Your task to perform on an android device: toggle airplane mode Image 0: 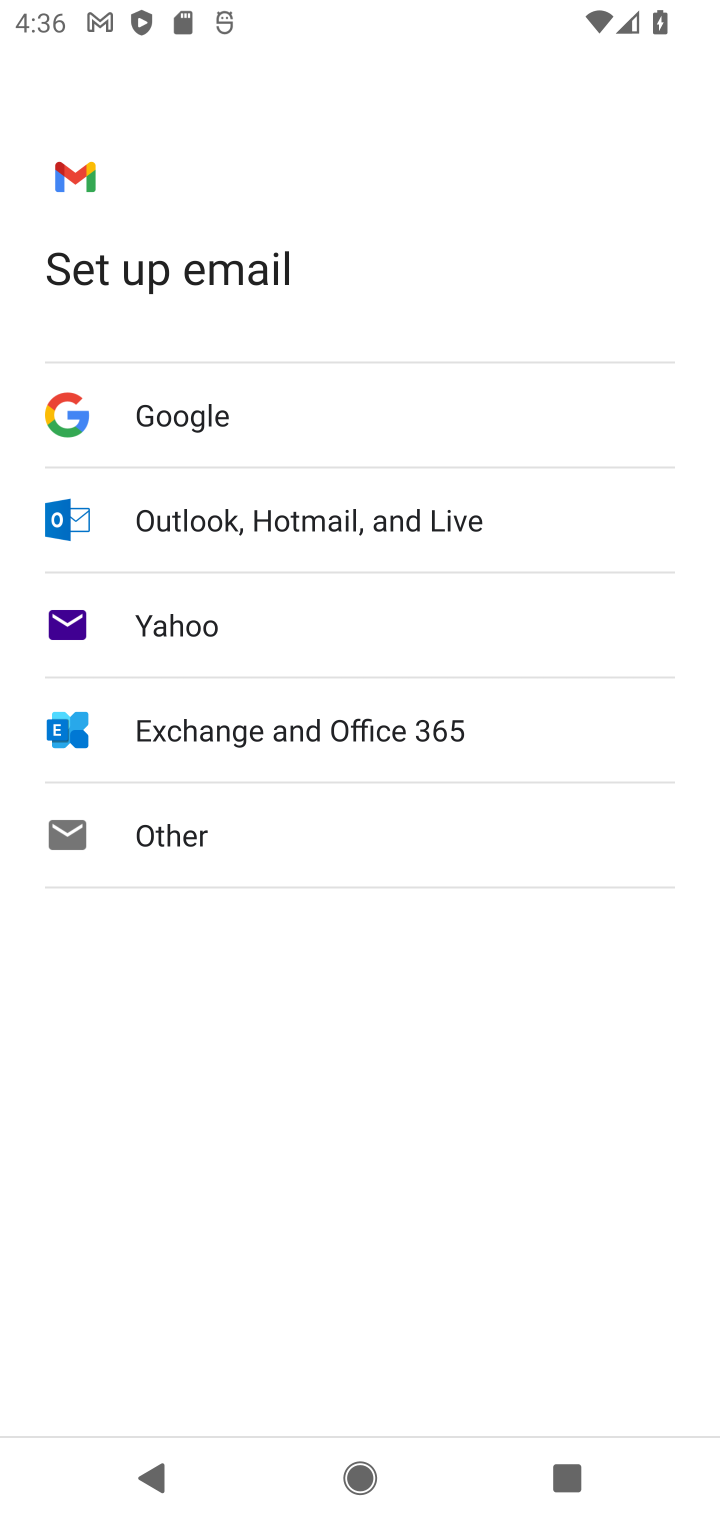
Step 0: press home button
Your task to perform on an android device: toggle airplane mode Image 1: 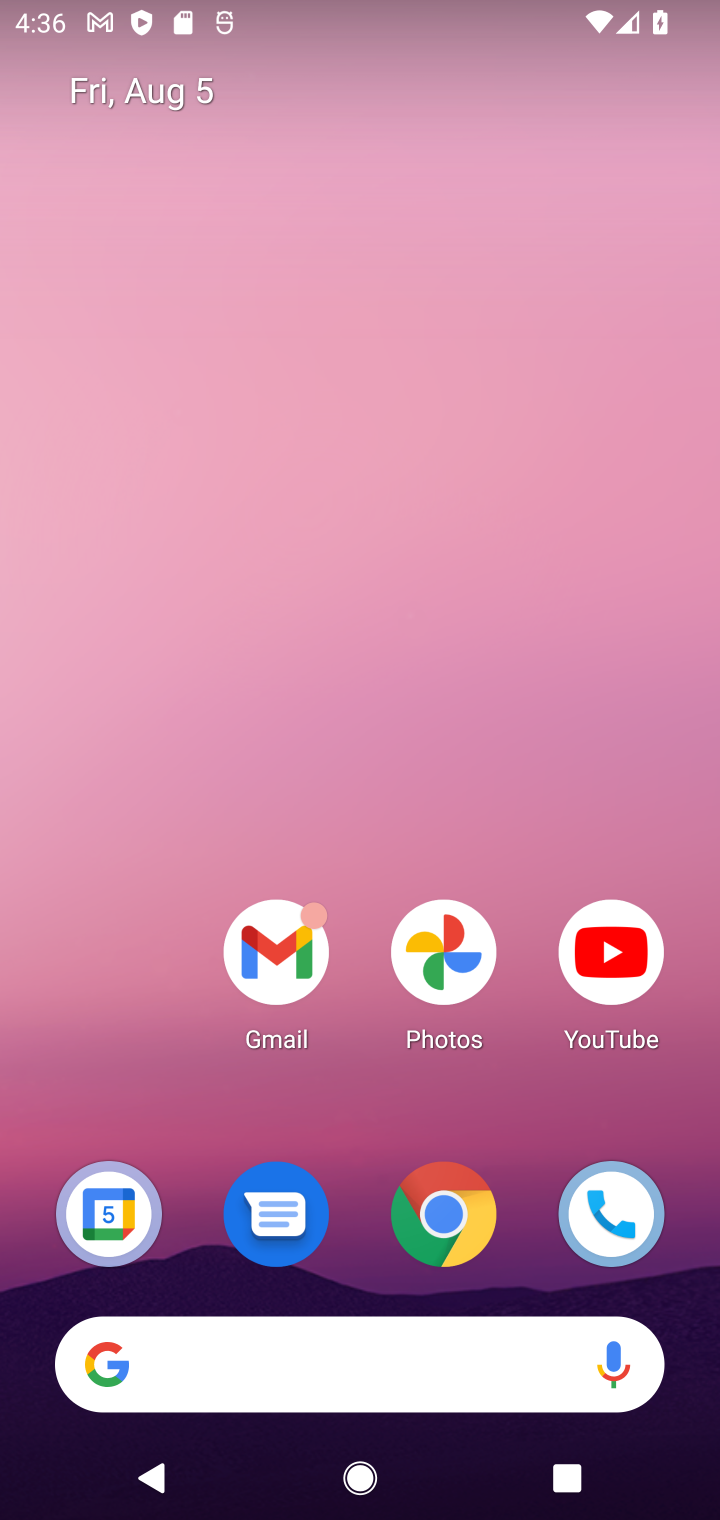
Step 1: click (179, 1060)
Your task to perform on an android device: toggle airplane mode Image 2: 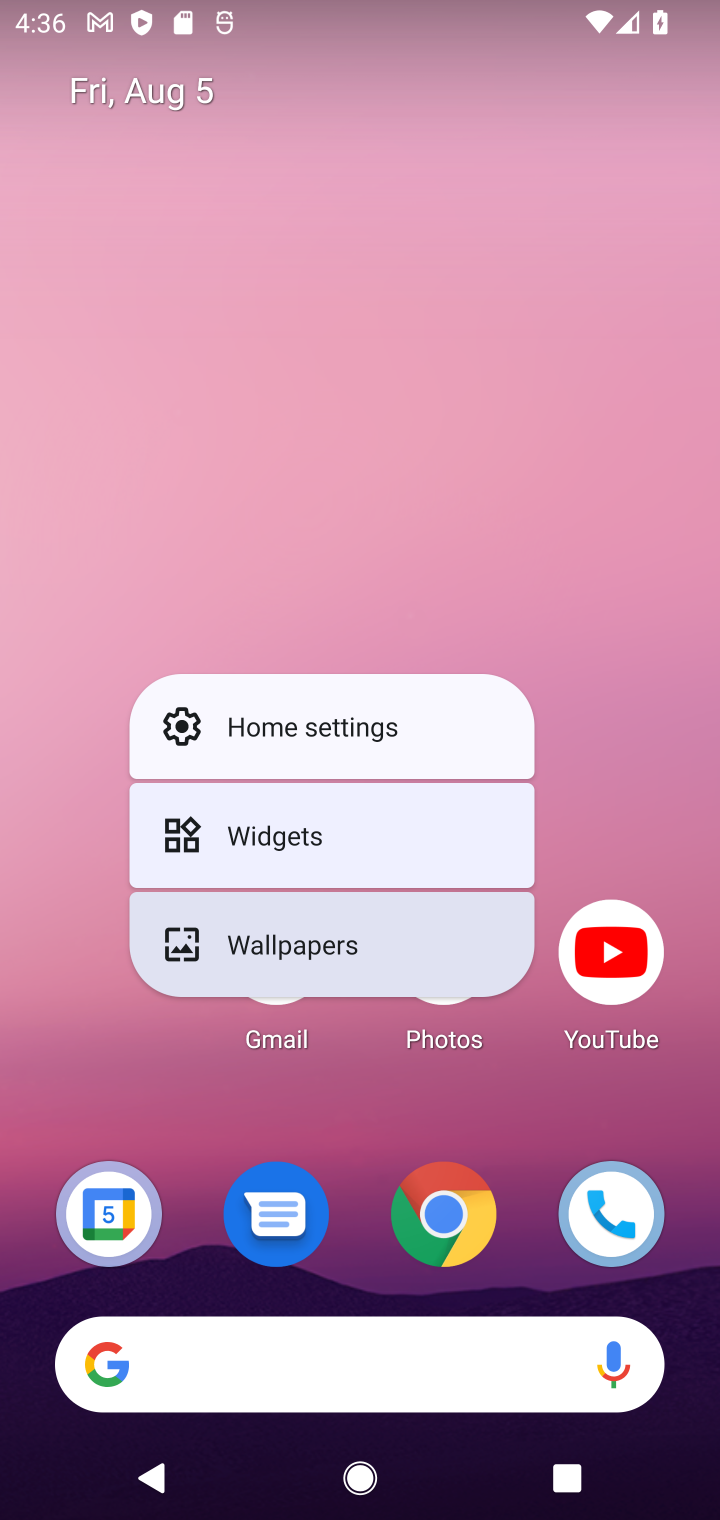
Step 2: click (277, 1206)
Your task to perform on an android device: toggle airplane mode Image 3: 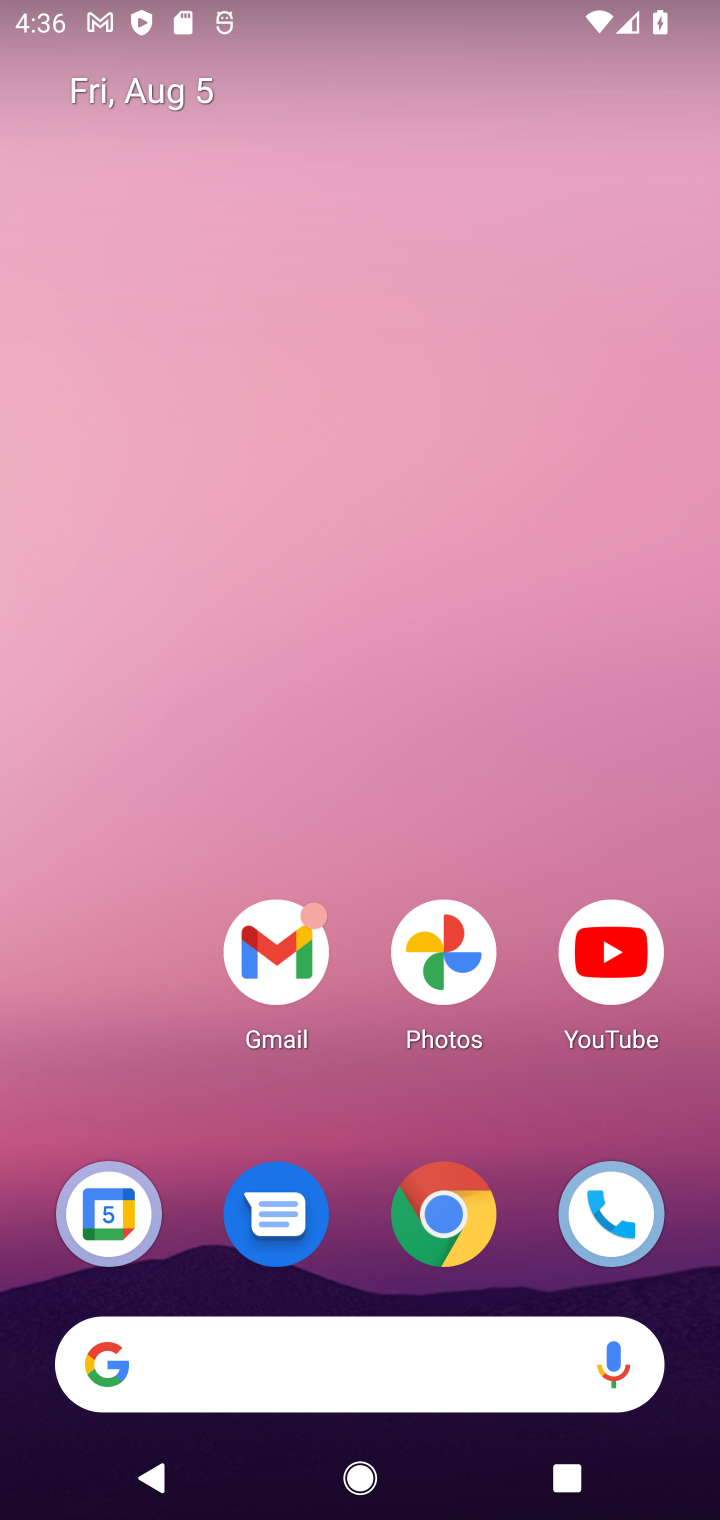
Step 3: drag from (182, 1004) to (388, 208)
Your task to perform on an android device: toggle airplane mode Image 4: 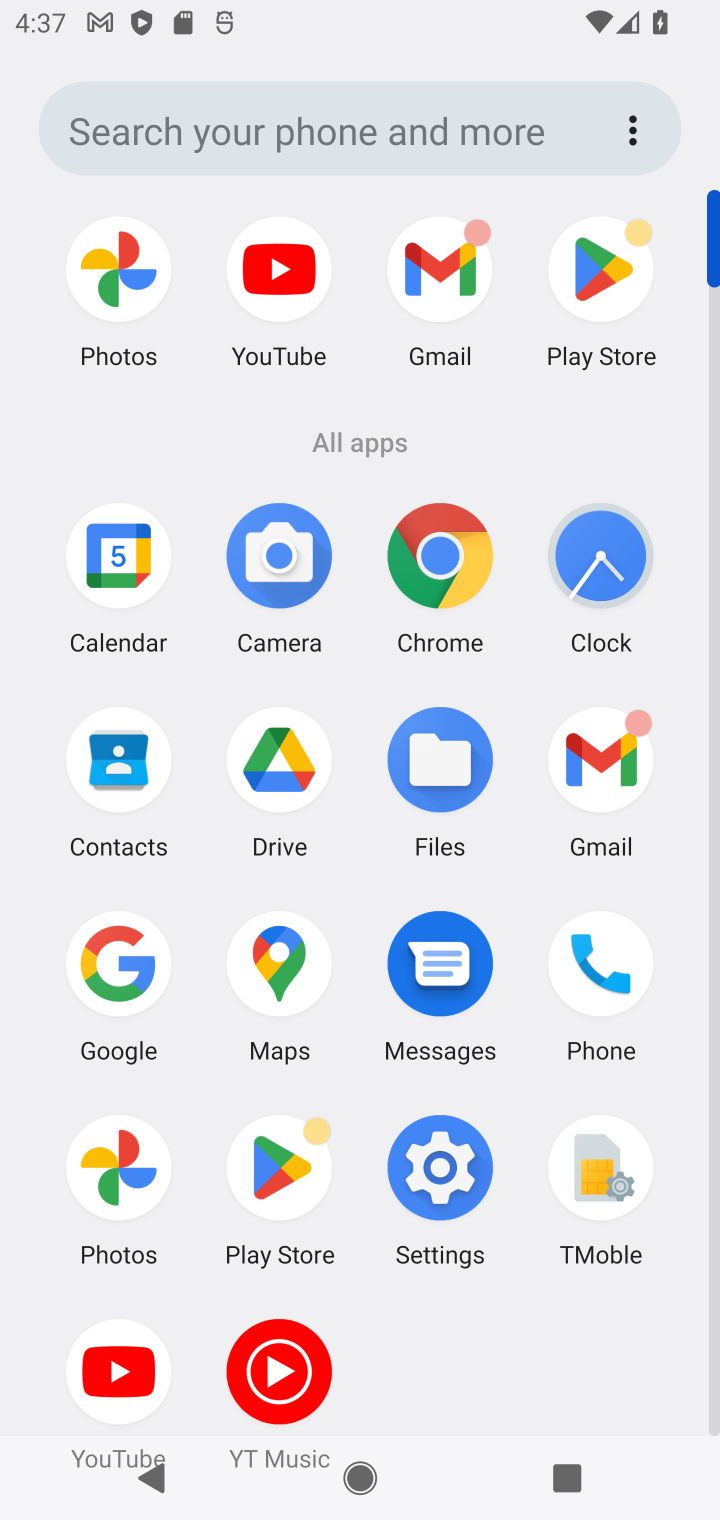
Step 4: click (424, 1164)
Your task to perform on an android device: toggle airplane mode Image 5: 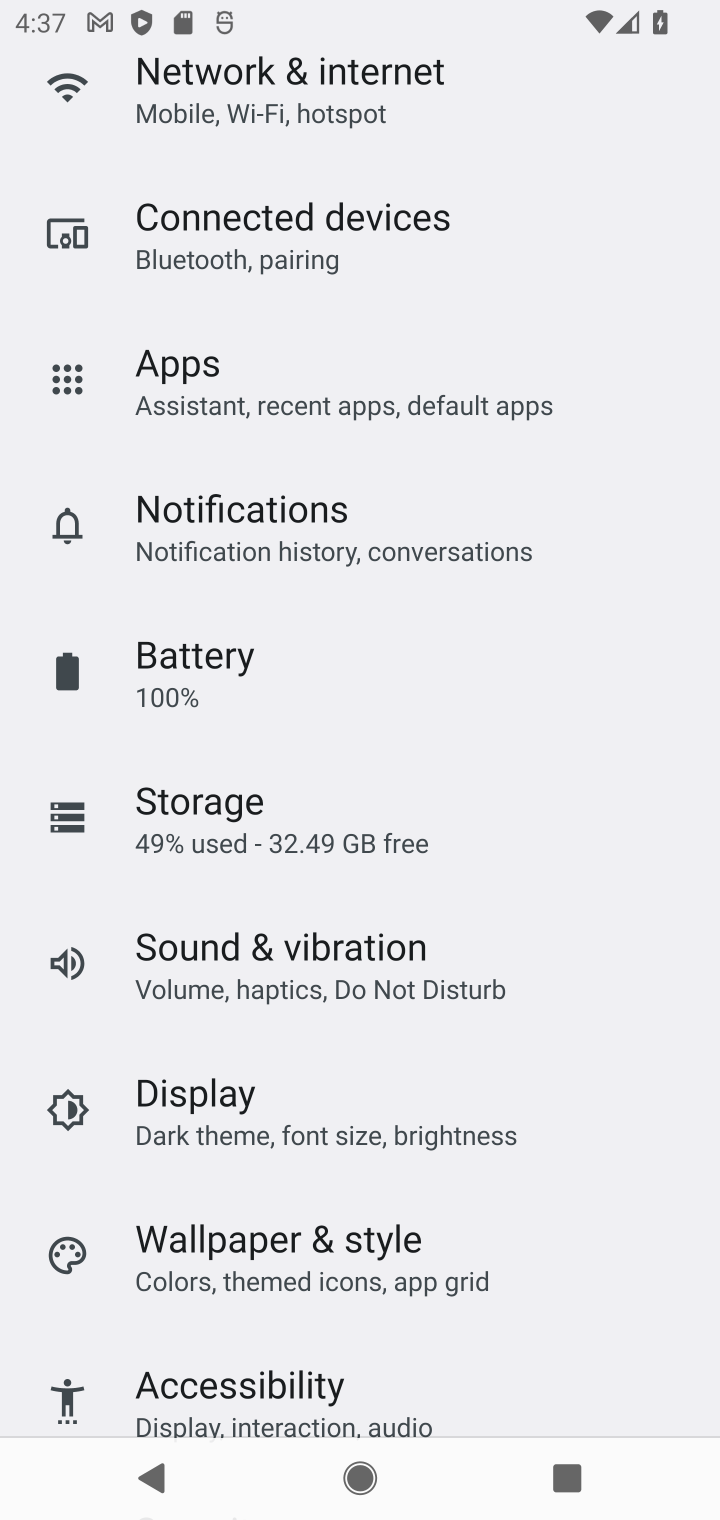
Step 5: drag from (448, 338) to (453, 1111)
Your task to perform on an android device: toggle airplane mode Image 6: 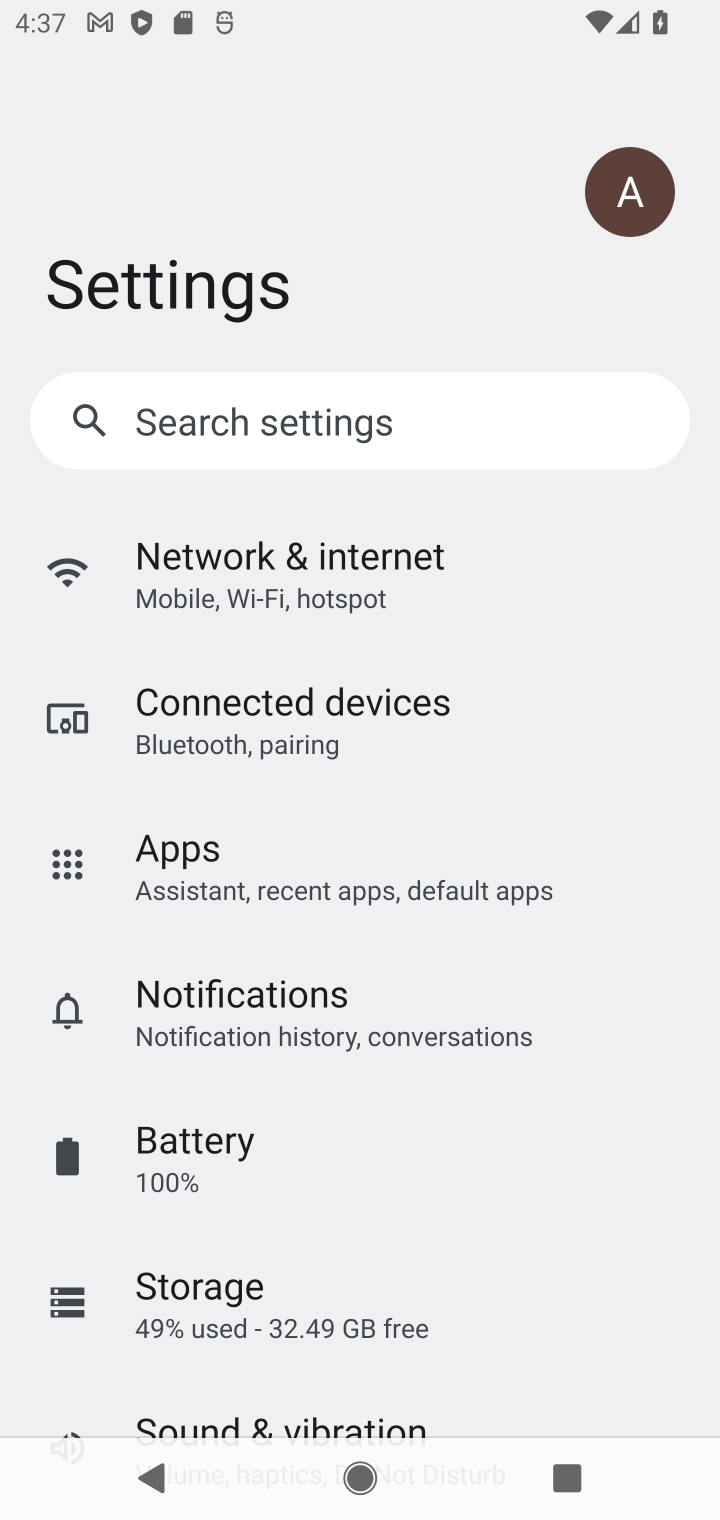
Step 6: click (352, 563)
Your task to perform on an android device: toggle airplane mode Image 7: 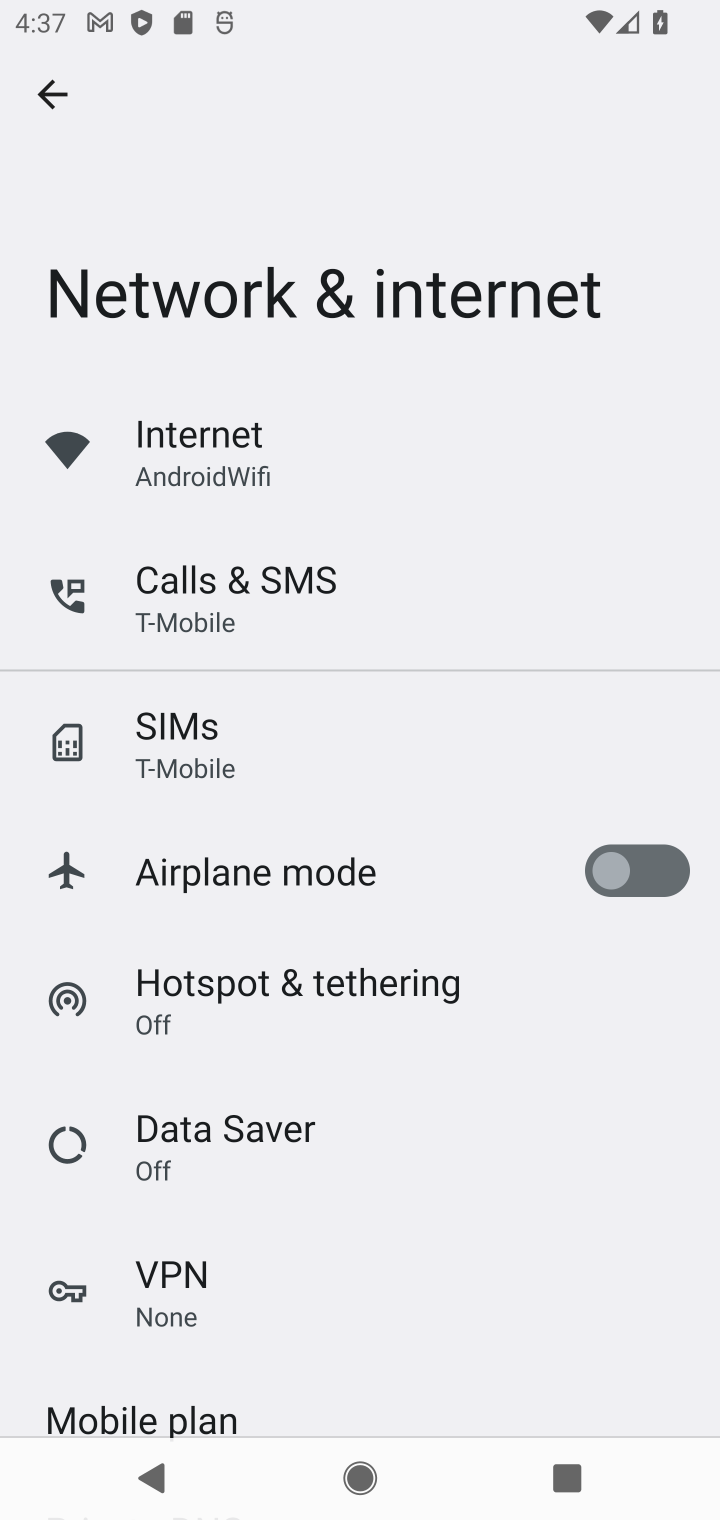
Step 7: click (625, 879)
Your task to perform on an android device: toggle airplane mode Image 8: 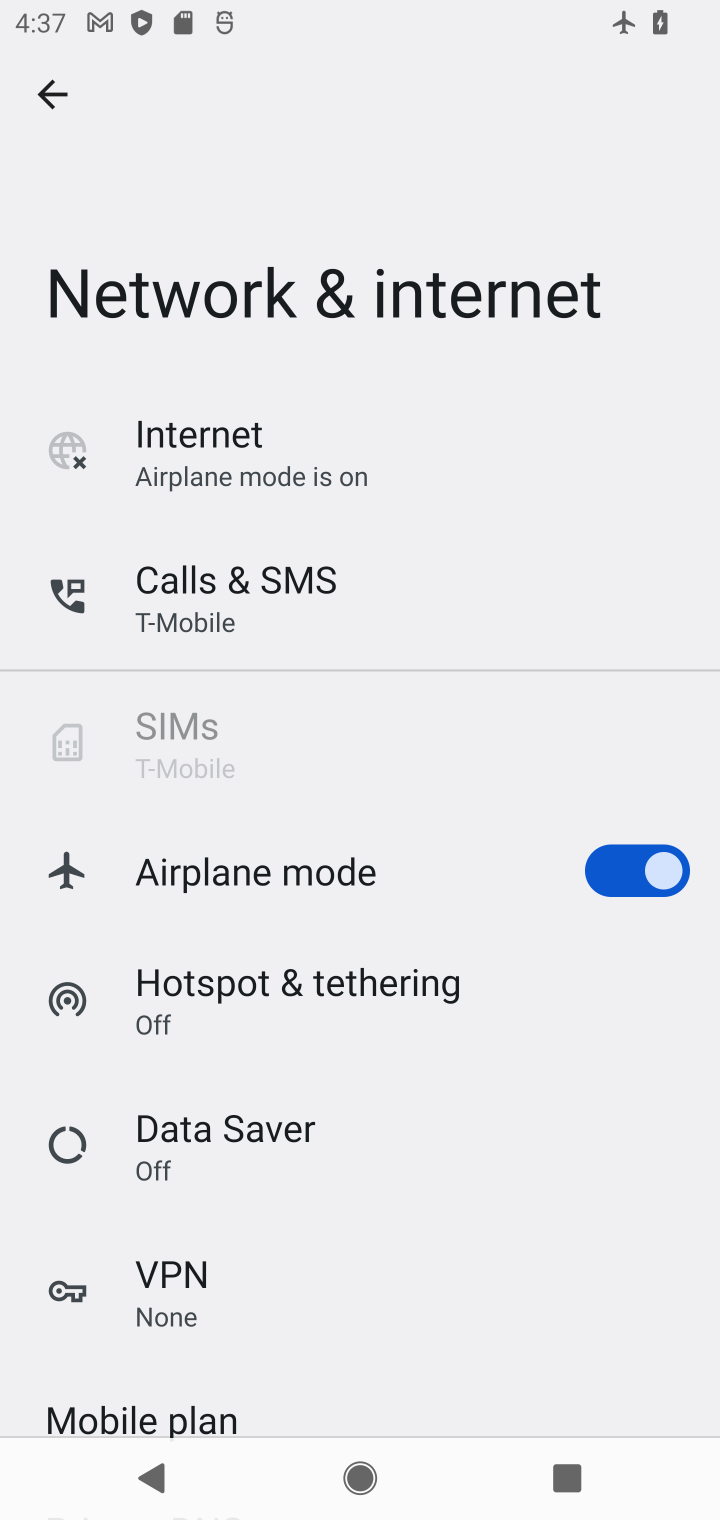
Step 8: task complete